Your task to perform on an android device: What is the recent news? Image 0: 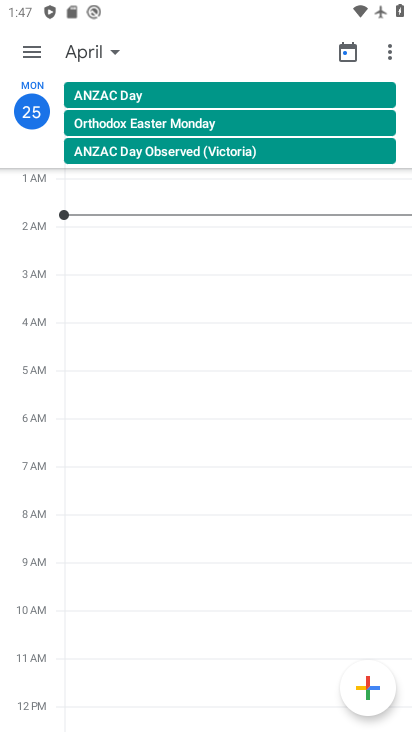
Step 0: press back button
Your task to perform on an android device: What is the recent news? Image 1: 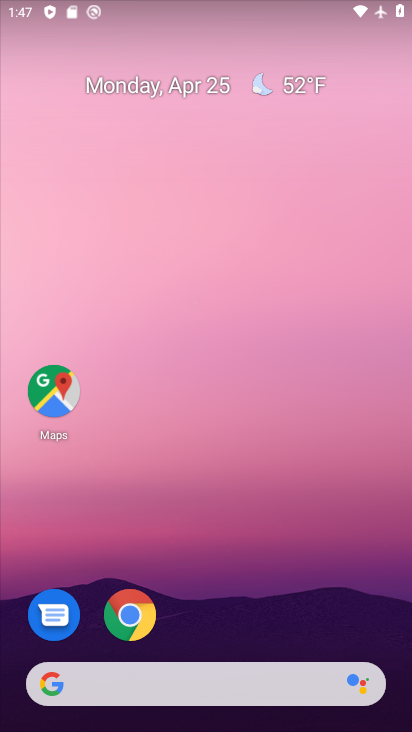
Step 1: drag from (248, 541) to (234, 20)
Your task to perform on an android device: What is the recent news? Image 2: 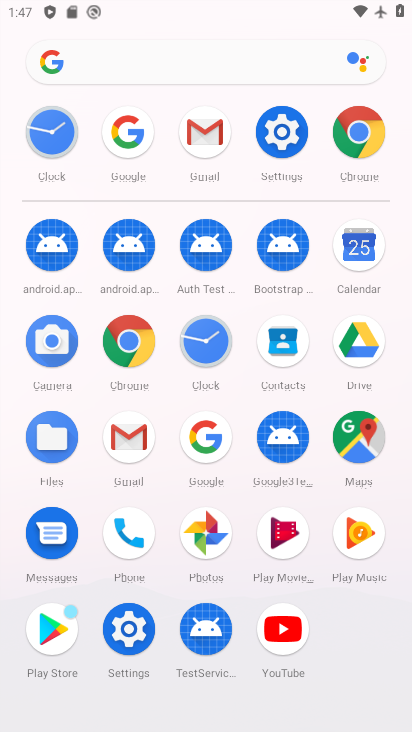
Step 2: click (204, 432)
Your task to perform on an android device: What is the recent news? Image 3: 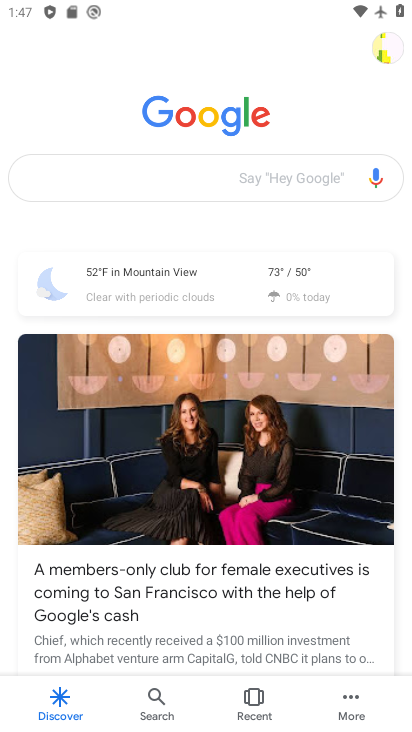
Step 3: click (225, 173)
Your task to perform on an android device: What is the recent news? Image 4: 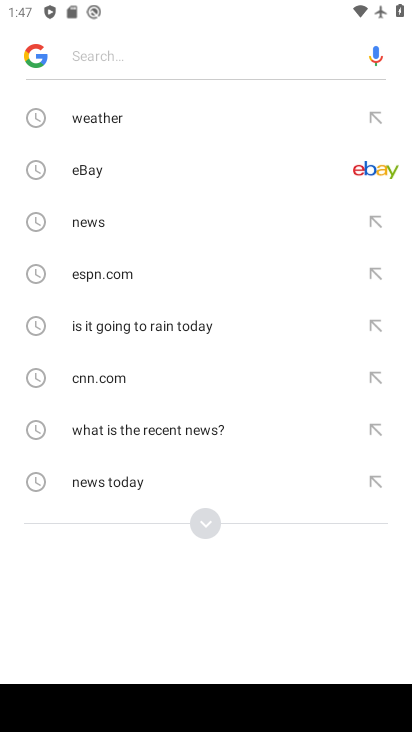
Step 4: click (207, 428)
Your task to perform on an android device: What is the recent news? Image 5: 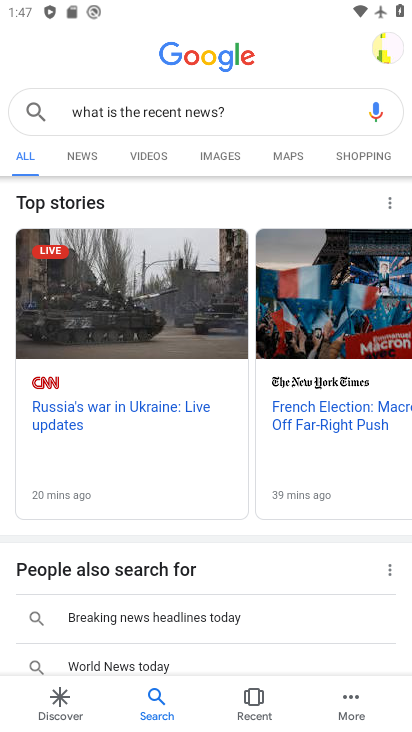
Step 5: click (152, 335)
Your task to perform on an android device: What is the recent news? Image 6: 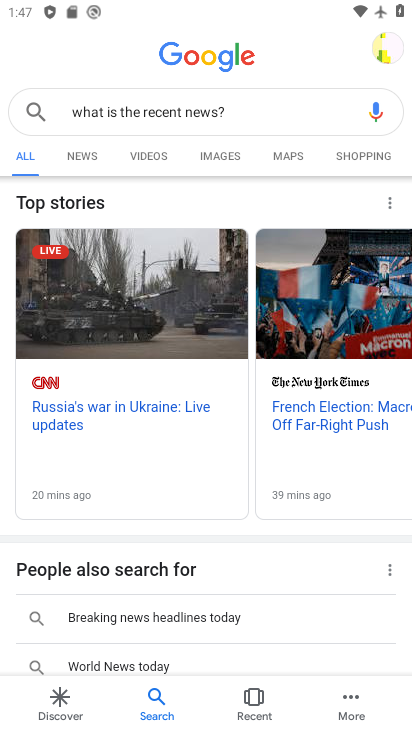
Step 6: click (153, 319)
Your task to perform on an android device: What is the recent news? Image 7: 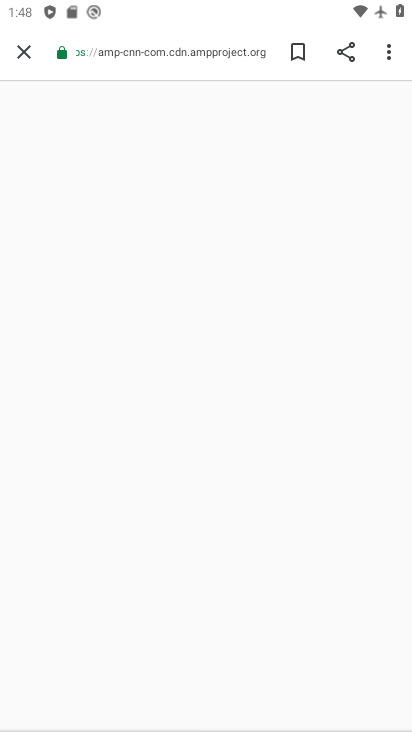
Step 7: task complete